Your task to perform on an android device: Clear the shopping cart on costco.com. Image 0: 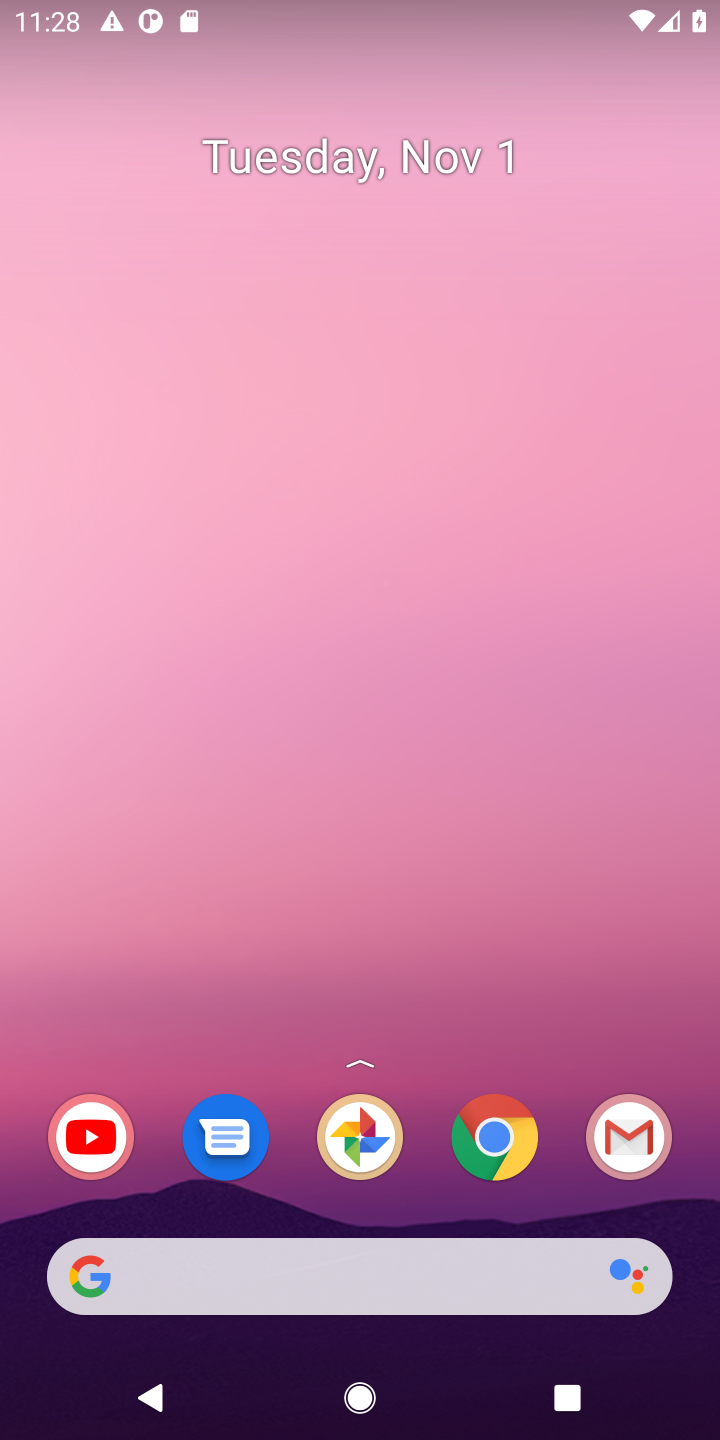
Step 0: click (321, 1247)
Your task to perform on an android device: Clear the shopping cart on costco.com. Image 1: 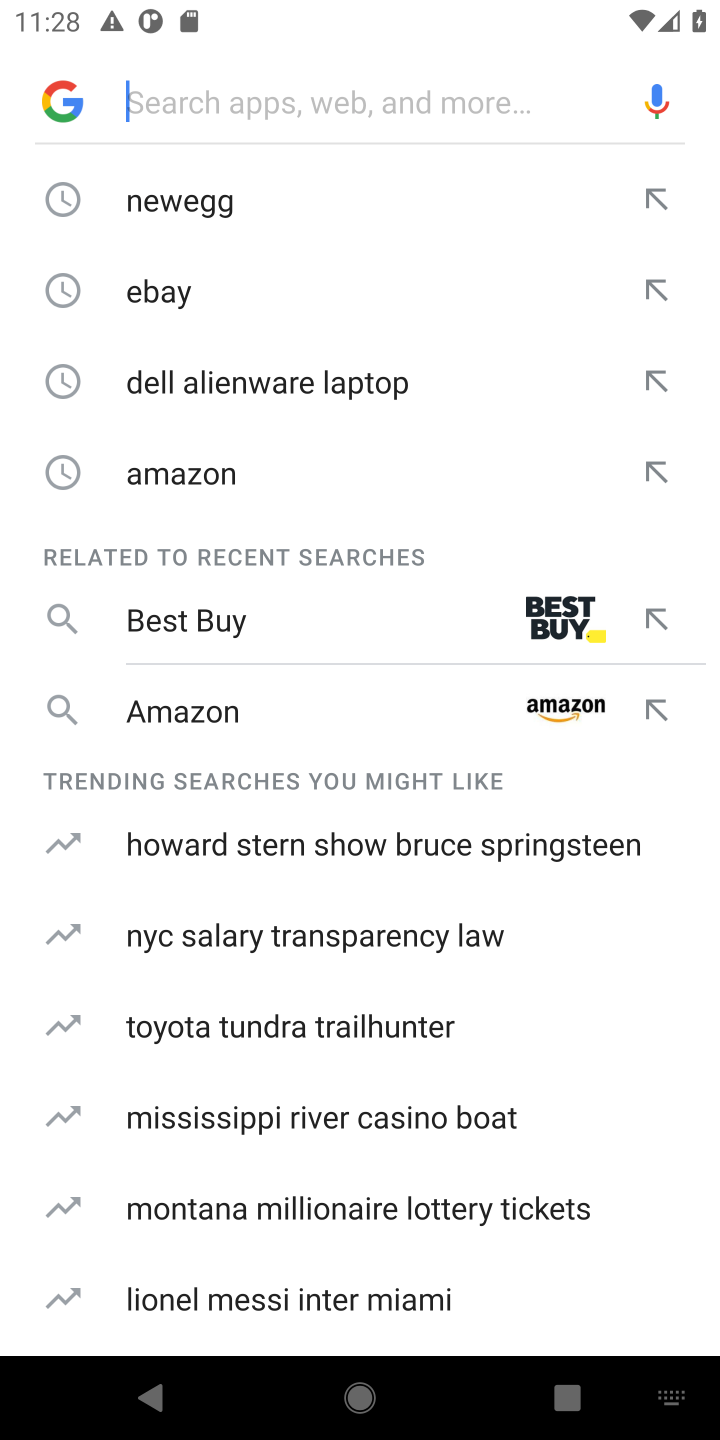
Step 1: type "costco.com."
Your task to perform on an android device: Clear the shopping cart on costco.com. Image 2: 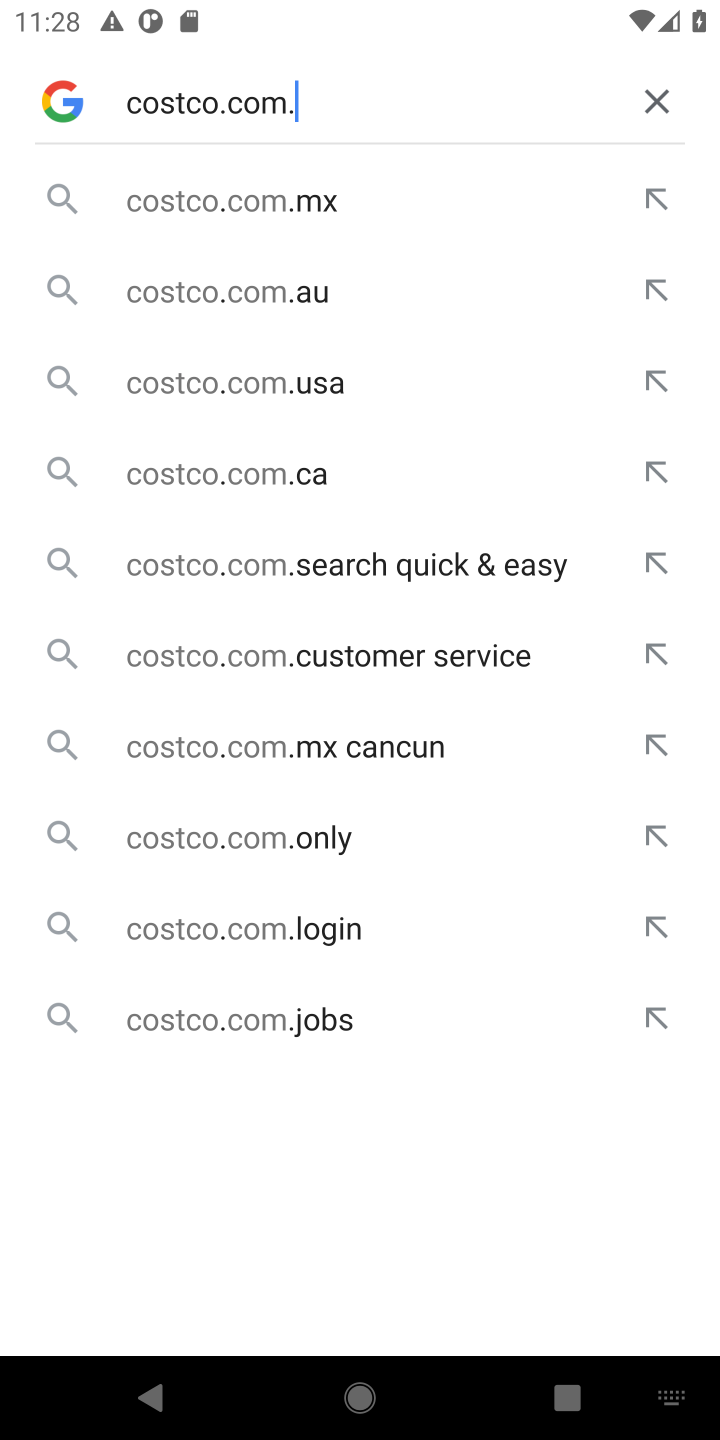
Step 2: click (256, 154)
Your task to perform on an android device: Clear the shopping cart on costco.com. Image 3: 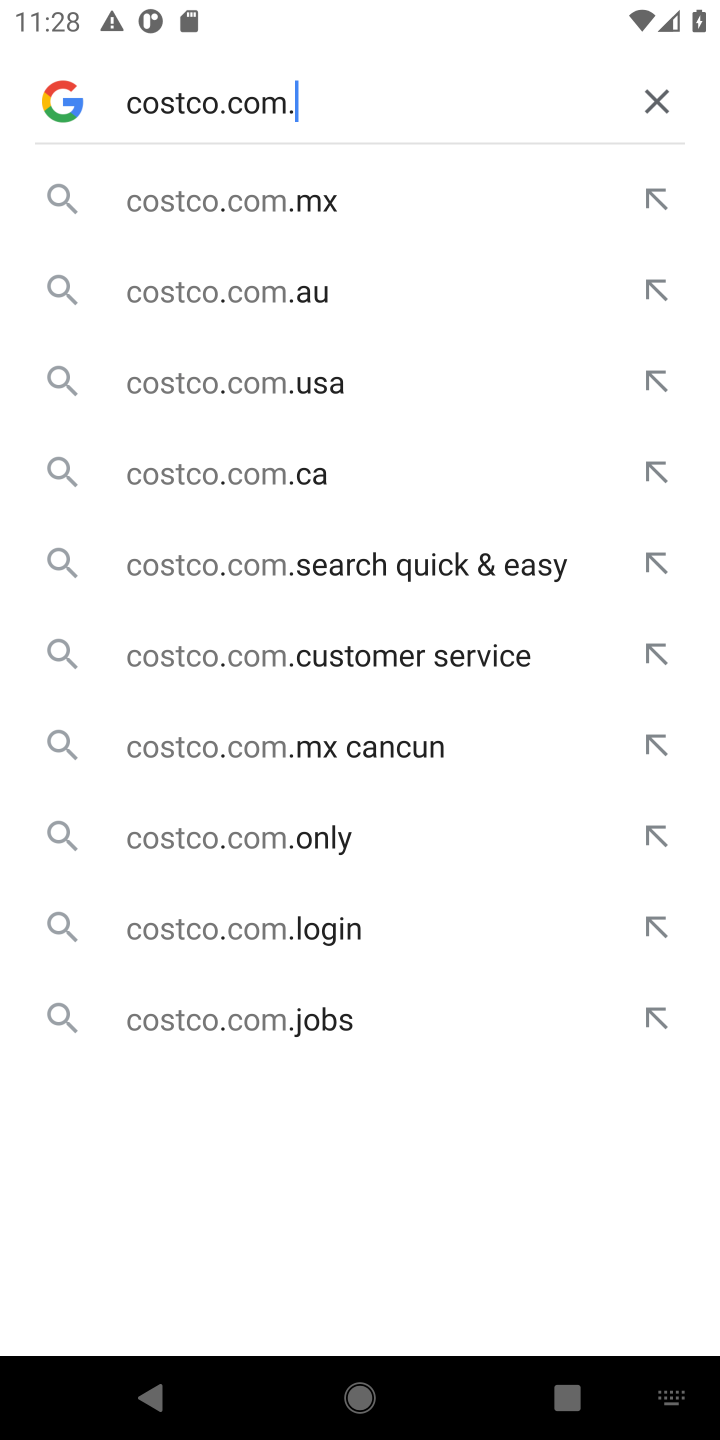
Step 3: click (654, 94)
Your task to perform on an android device: Clear the shopping cart on costco.com. Image 4: 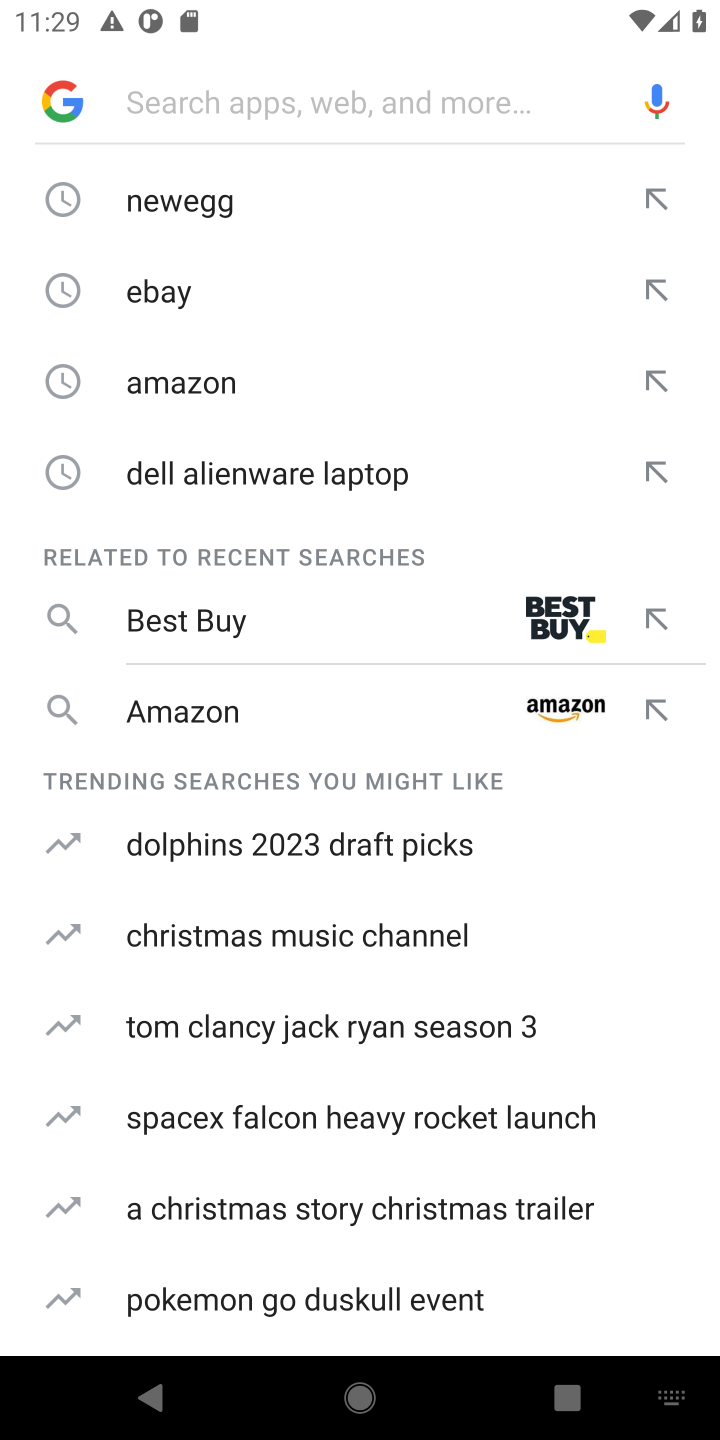
Step 4: type "costco.com"
Your task to perform on an android device: Clear the shopping cart on costco.com. Image 5: 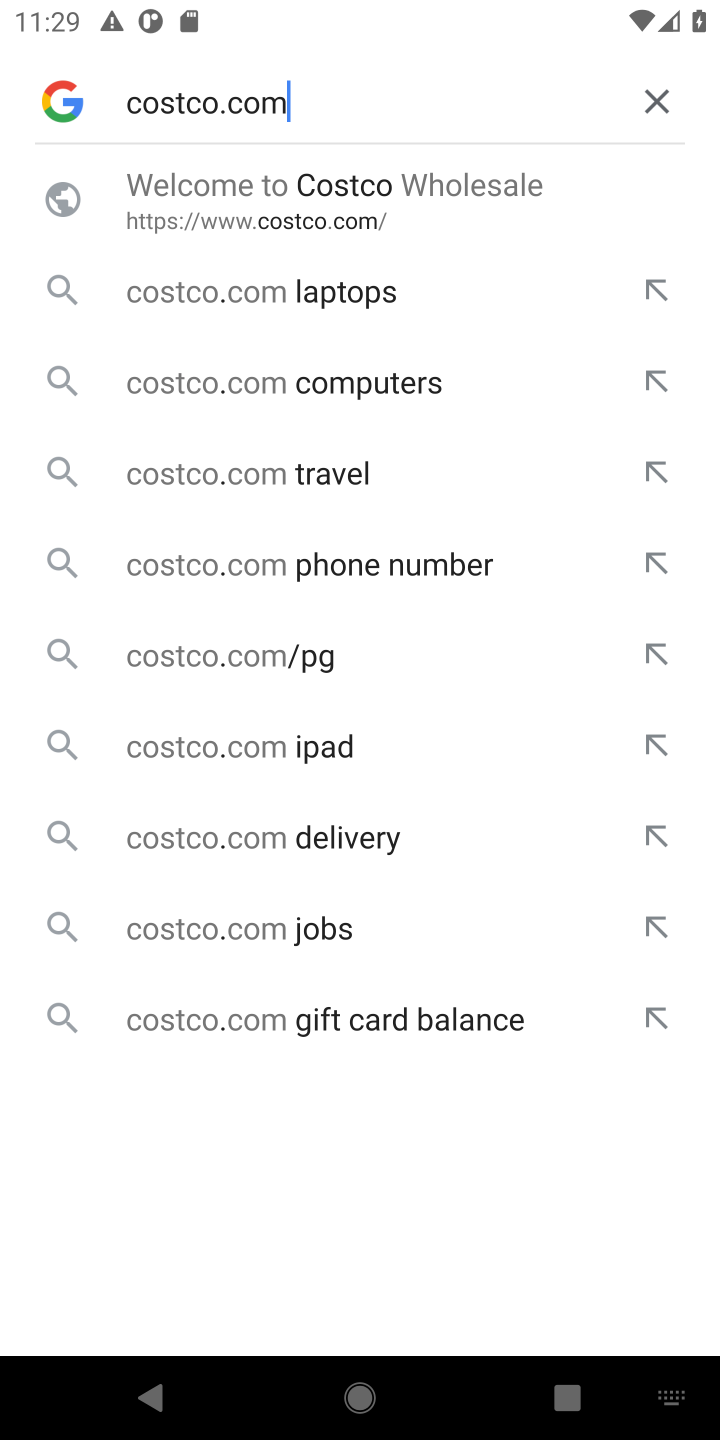
Step 5: click (385, 207)
Your task to perform on an android device: Clear the shopping cart on costco.com. Image 6: 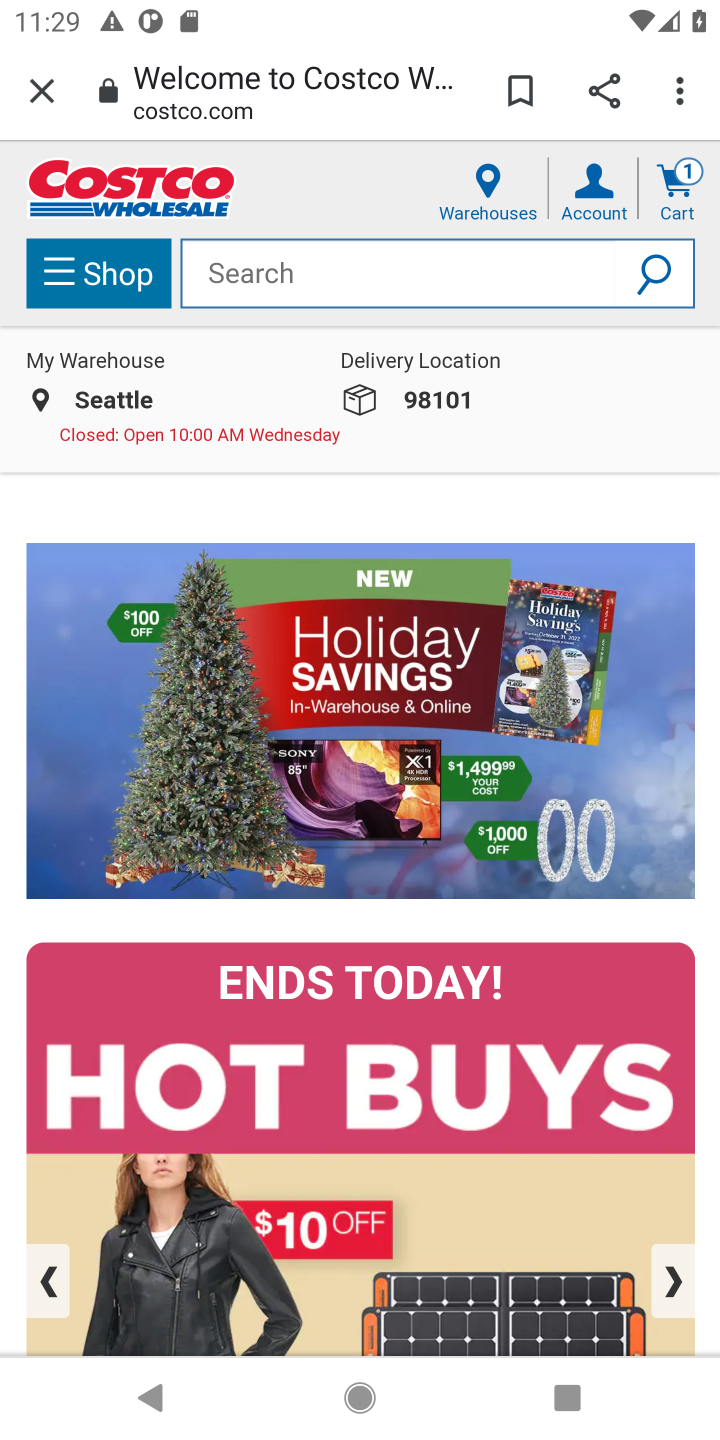
Step 6: click (668, 189)
Your task to perform on an android device: Clear the shopping cart on costco.com. Image 7: 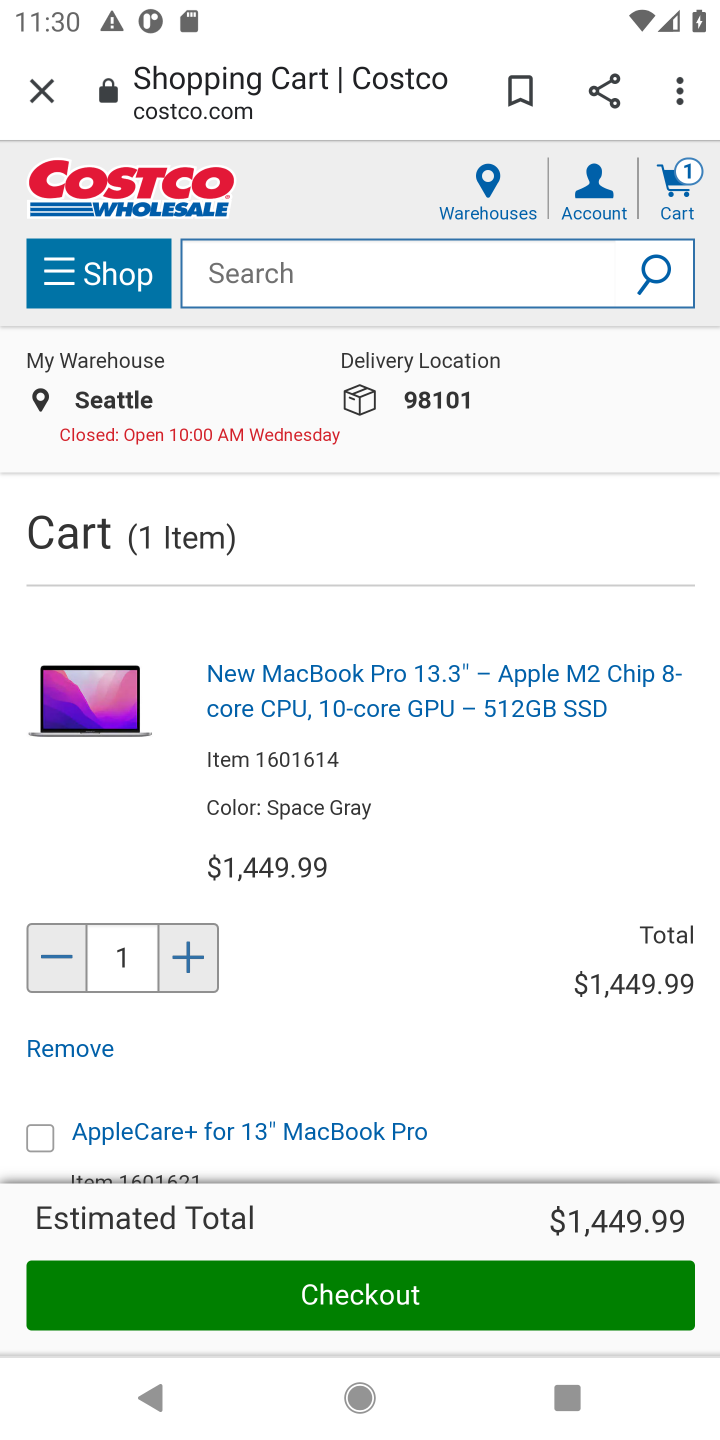
Step 7: click (53, 1043)
Your task to perform on an android device: Clear the shopping cart on costco.com. Image 8: 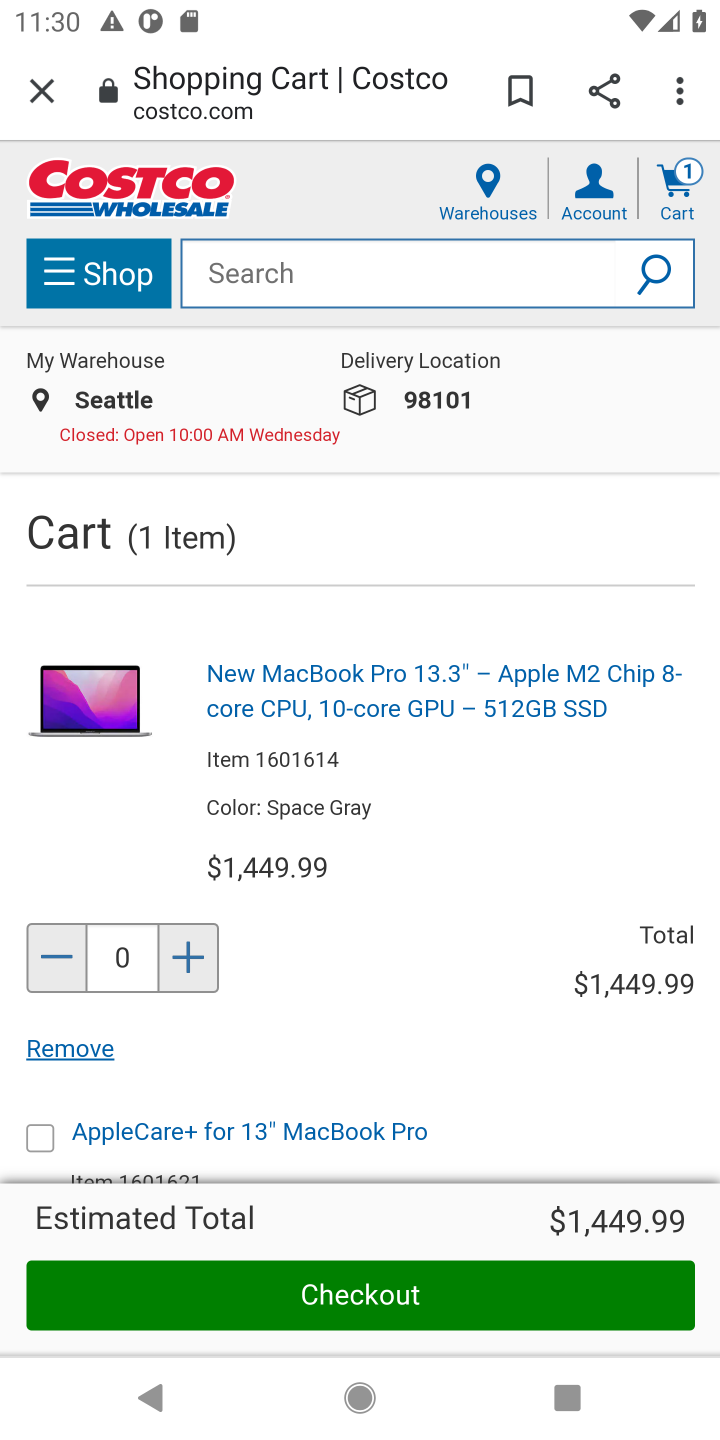
Step 8: click (51, 967)
Your task to perform on an android device: Clear the shopping cart on costco.com. Image 9: 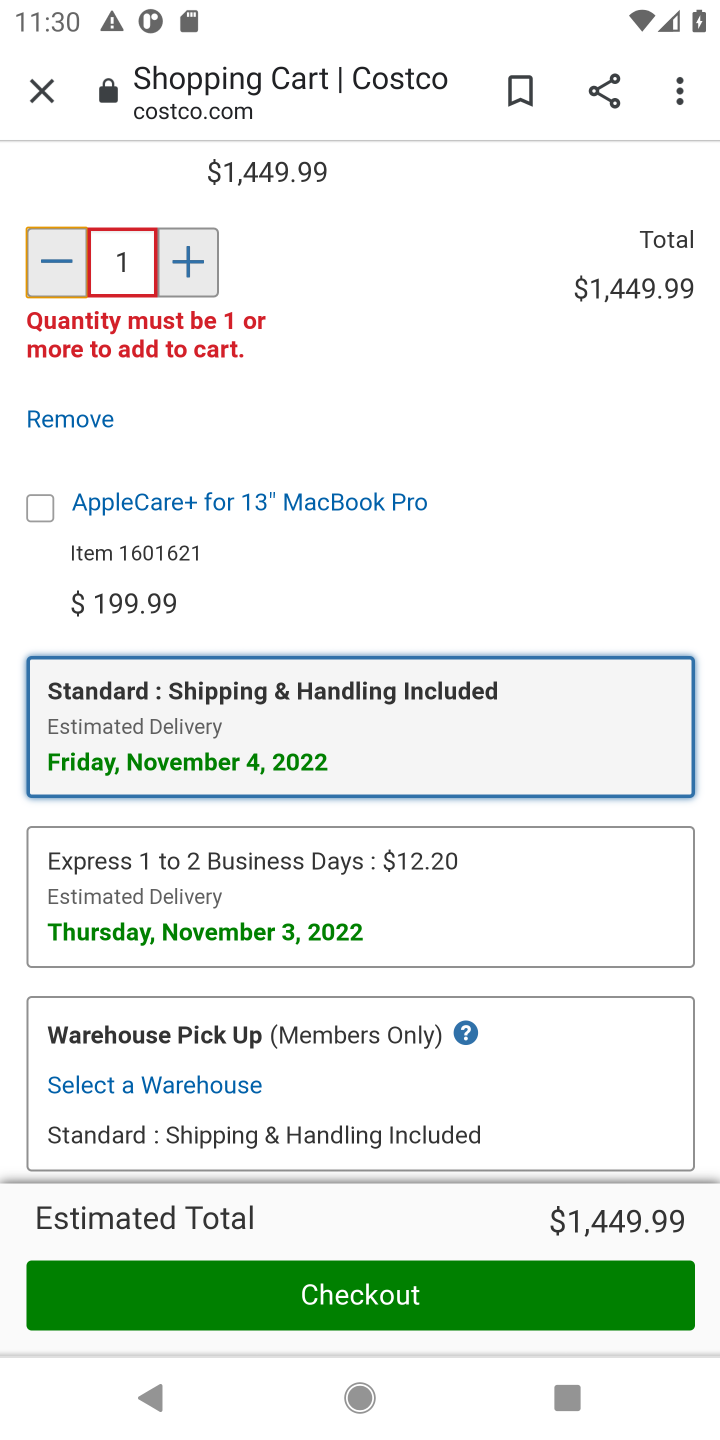
Step 9: click (233, 598)
Your task to perform on an android device: Clear the shopping cart on costco.com. Image 10: 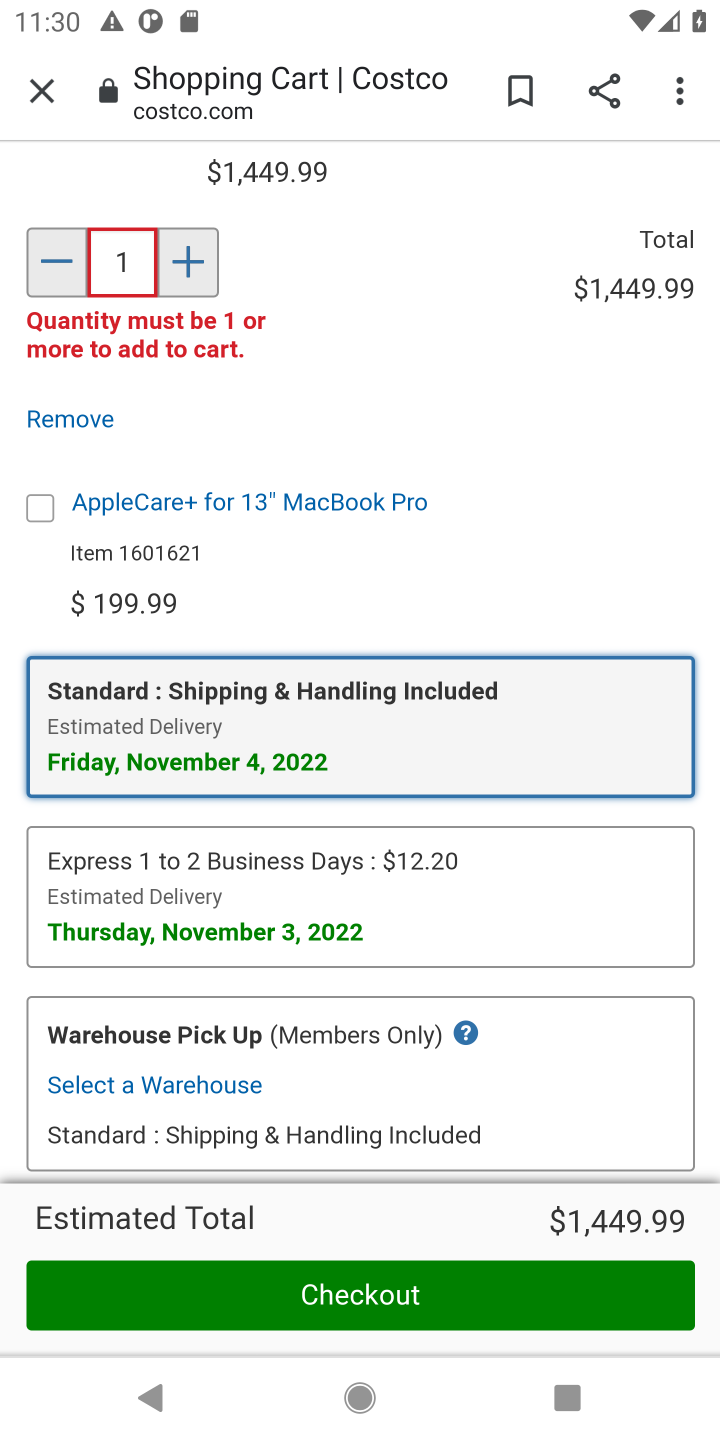
Step 10: click (70, 417)
Your task to perform on an android device: Clear the shopping cart on costco.com. Image 11: 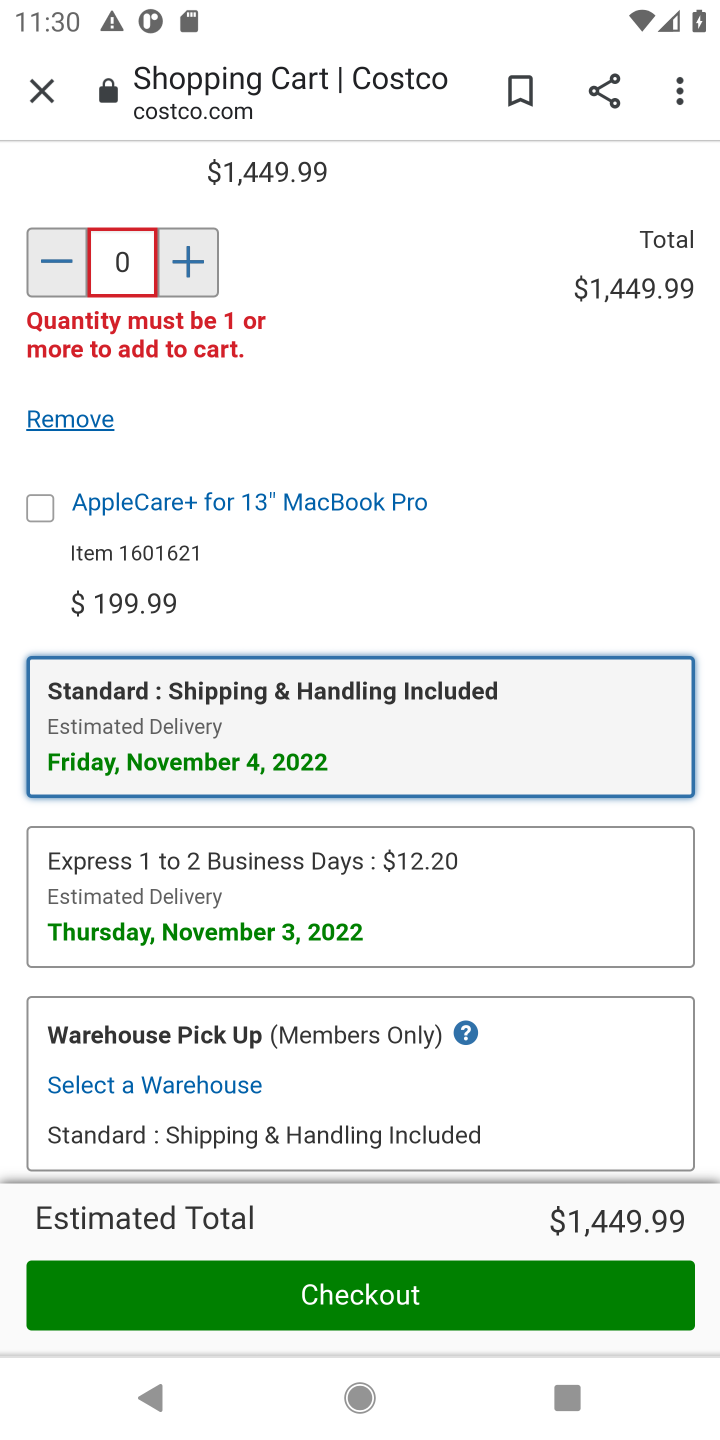
Step 11: drag from (377, 460) to (425, 773)
Your task to perform on an android device: Clear the shopping cart on costco.com. Image 12: 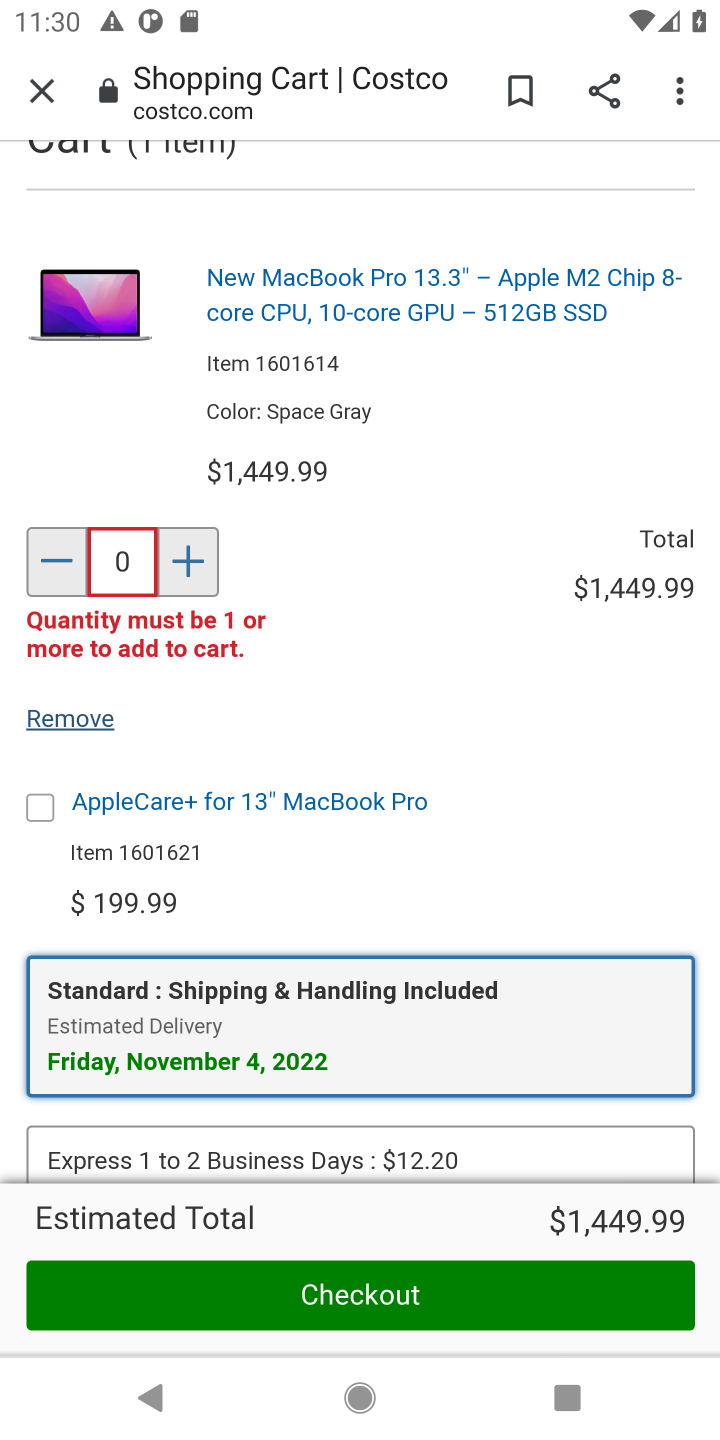
Step 12: click (45, 567)
Your task to perform on an android device: Clear the shopping cart on costco.com. Image 13: 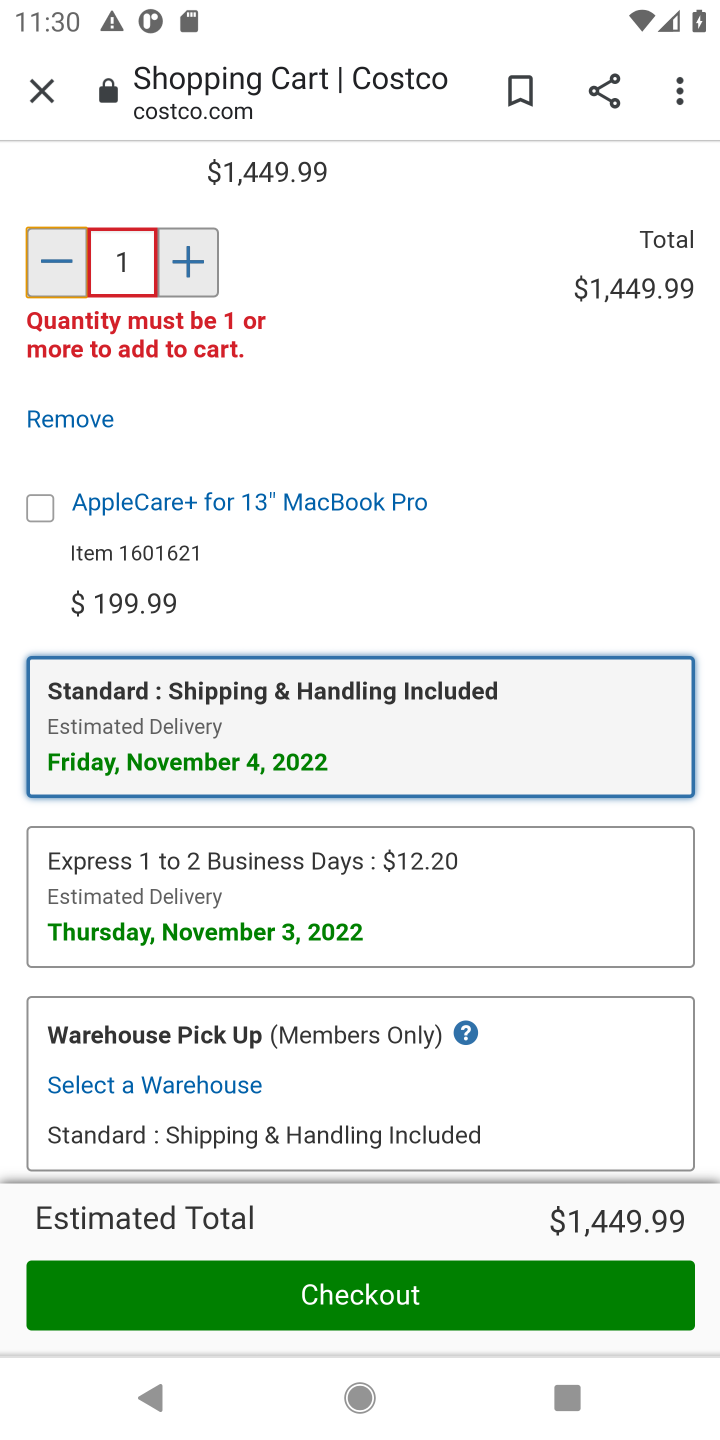
Step 13: click (82, 412)
Your task to perform on an android device: Clear the shopping cart on costco.com. Image 14: 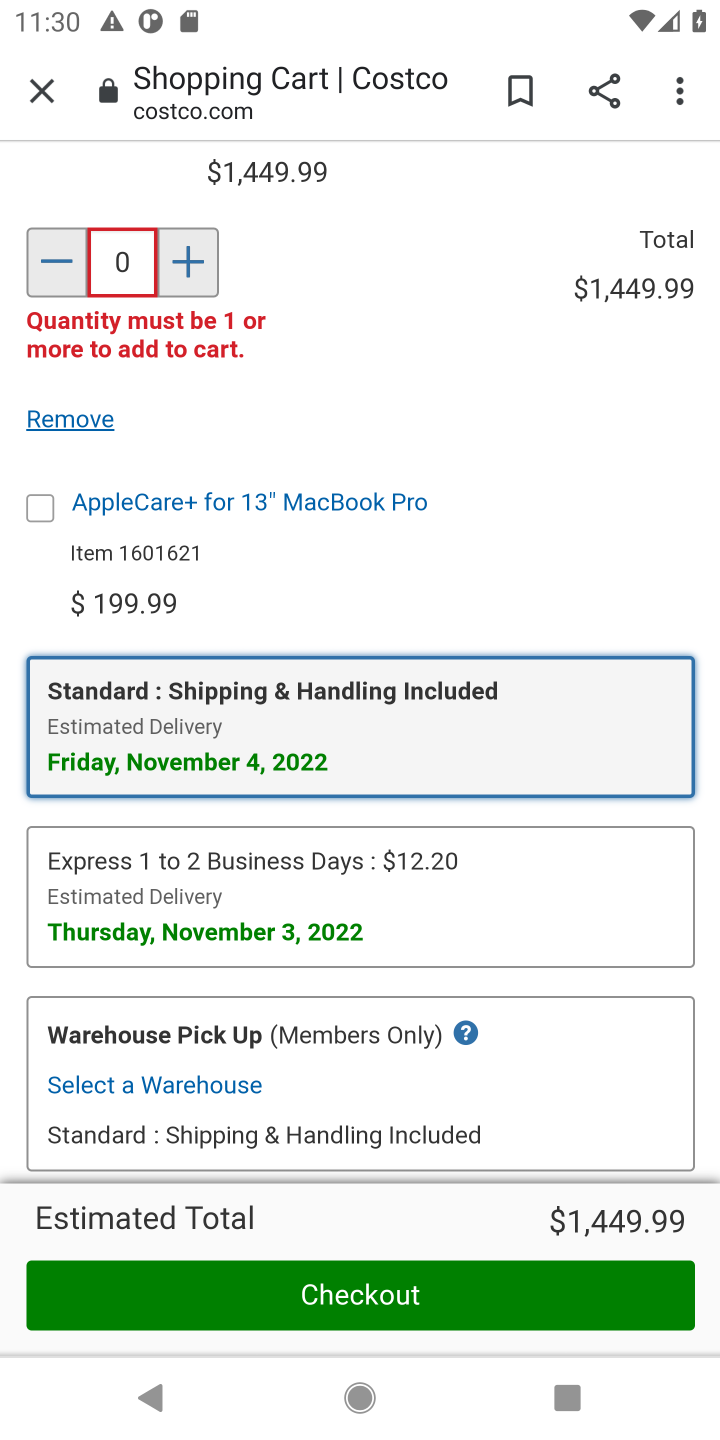
Step 14: task complete